Your task to perform on an android device: open a new tab in the chrome app Image 0: 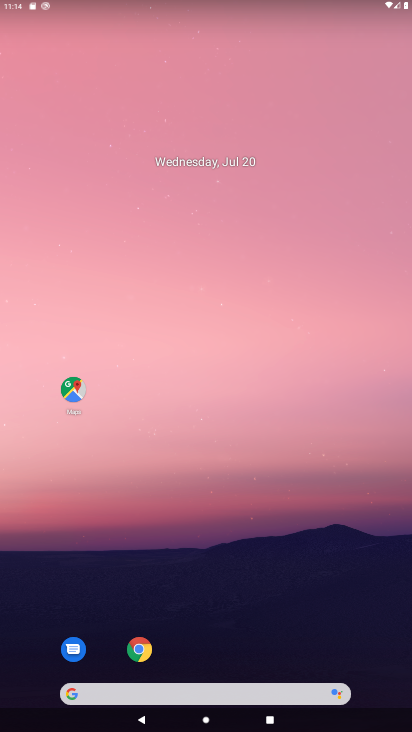
Step 0: click (138, 651)
Your task to perform on an android device: open a new tab in the chrome app Image 1: 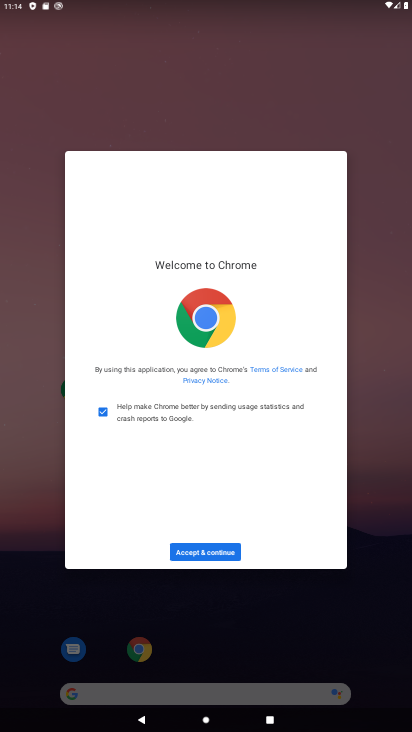
Step 1: click (210, 553)
Your task to perform on an android device: open a new tab in the chrome app Image 2: 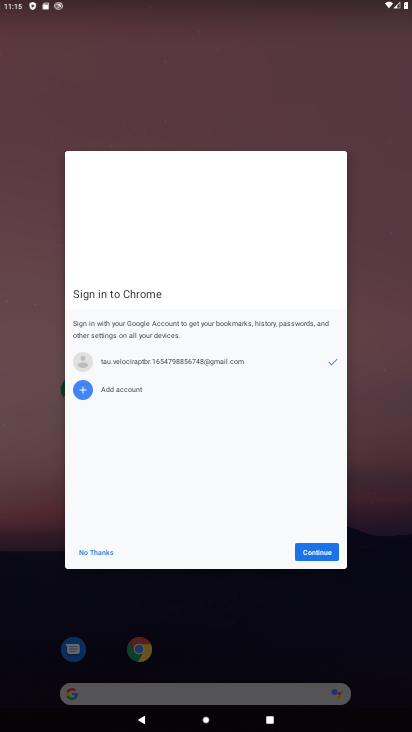
Step 2: click (316, 555)
Your task to perform on an android device: open a new tab in the chrome app Image 3: 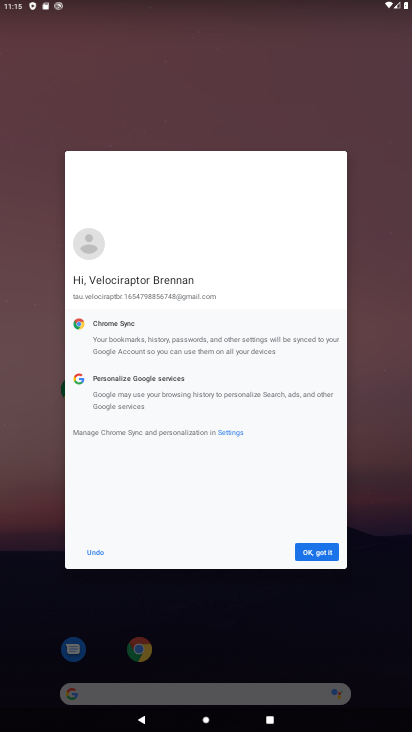
Step 3: click (313, 556)
Your task to perform on an android device: open a new tab in the chrome app Image 4: 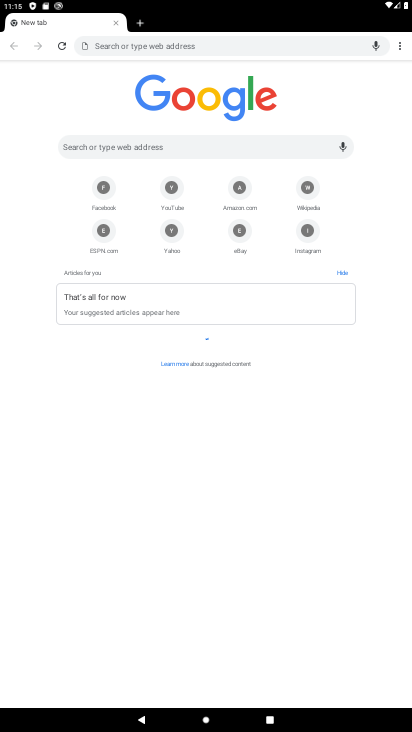
Step 4: click (141, 27)
Your task to perform on an android device: open a new tab in the chrome app Image 5: 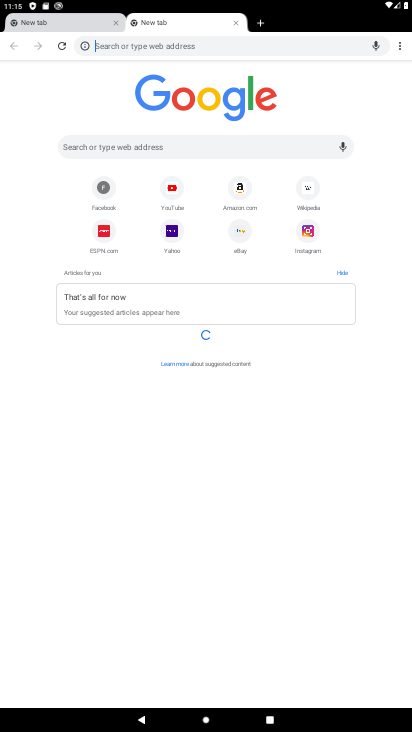
Step 5: task complete